Your task to perform on an android device: Open maps Image 0: 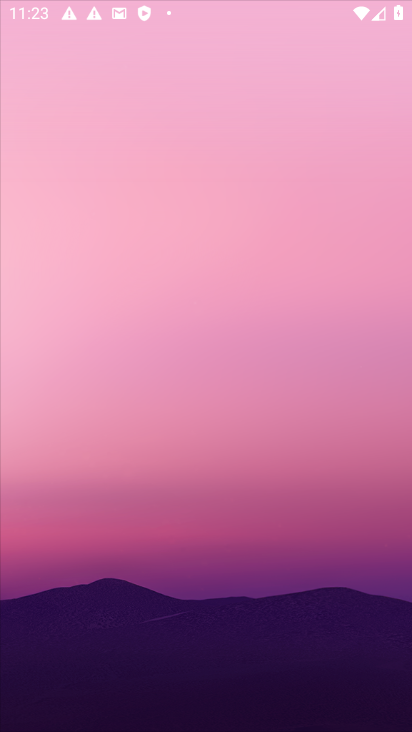
Step 0: press back button
Your task to perform on an android device: Open maps Image 1: 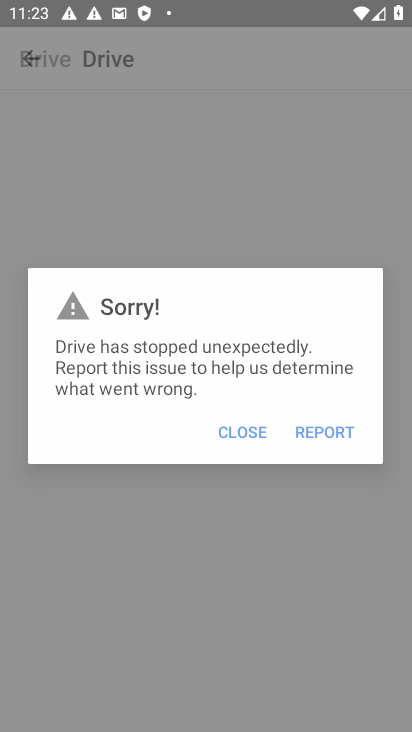
Step 1: press back button
Your task to perform on an android device: Open maps Image 2: 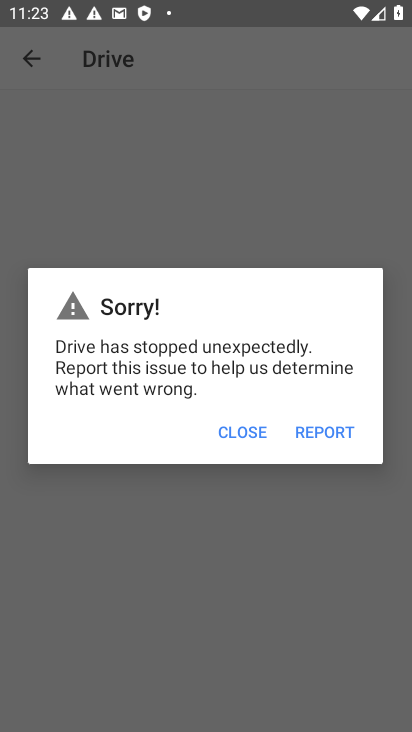
Step 2: click (233, 439)
Your task to perform on an android device: Open maps Image 3: 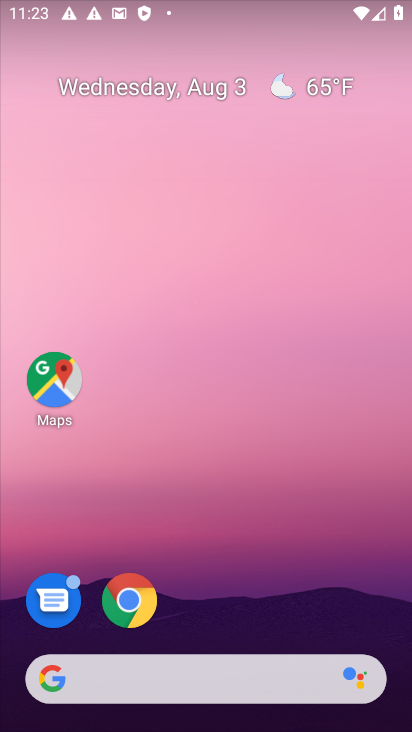
Step 3: click (40, 408)
Your task to perform on an android device: Open maps Image 4: 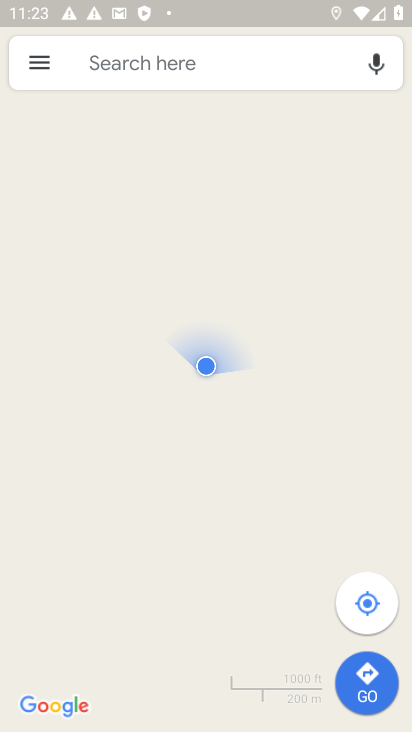
Step 4: task complete